Your task to perform on an android device: open app "Messages" (install if not already installed) and enter user name: "Hersey@inbox.com" and password: "facings" Image 0: 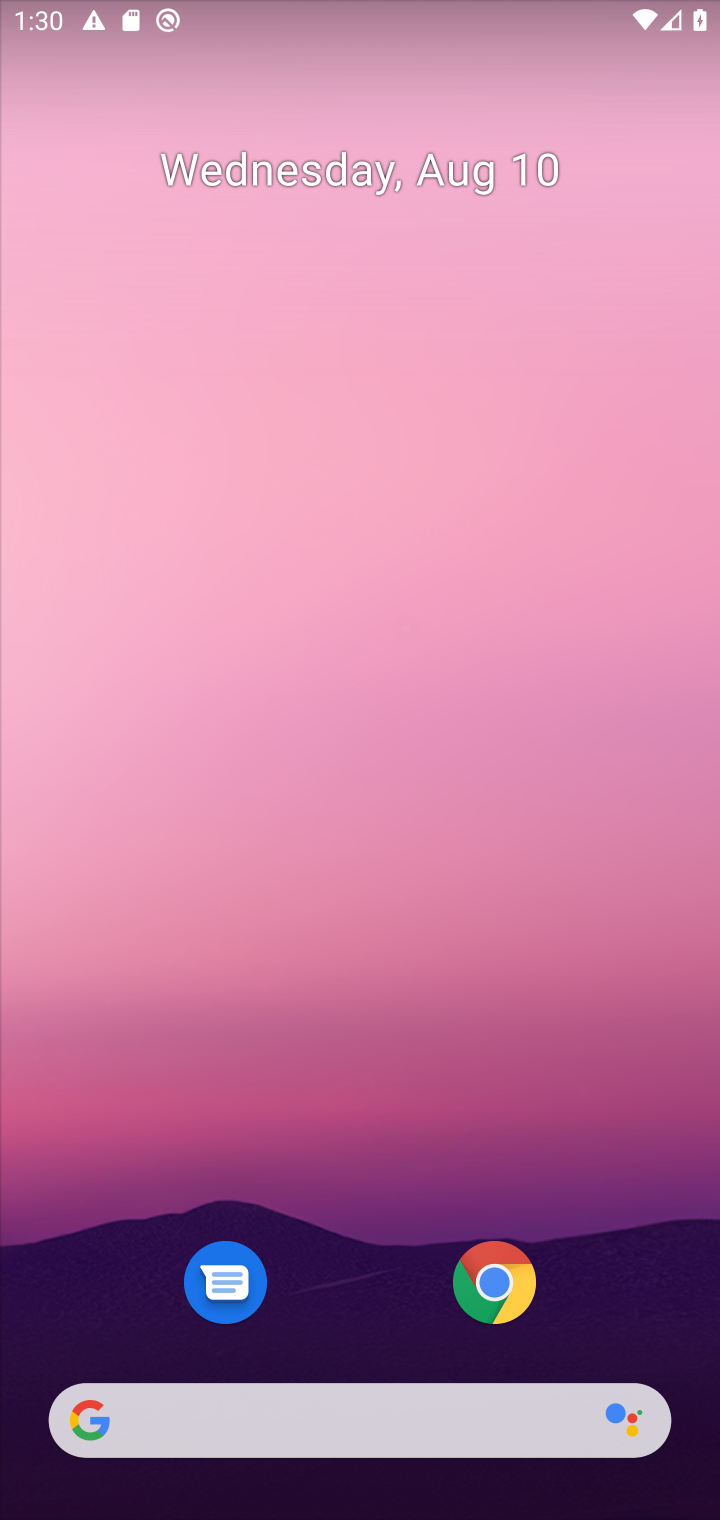
Step 0: drag from (426, 1383) to (384, 163)
Your task to perform on an android device: open app "Messages" (install if not already installed) and enter user name: "Hersey@inbox.com" and password: "facings" Image 1: 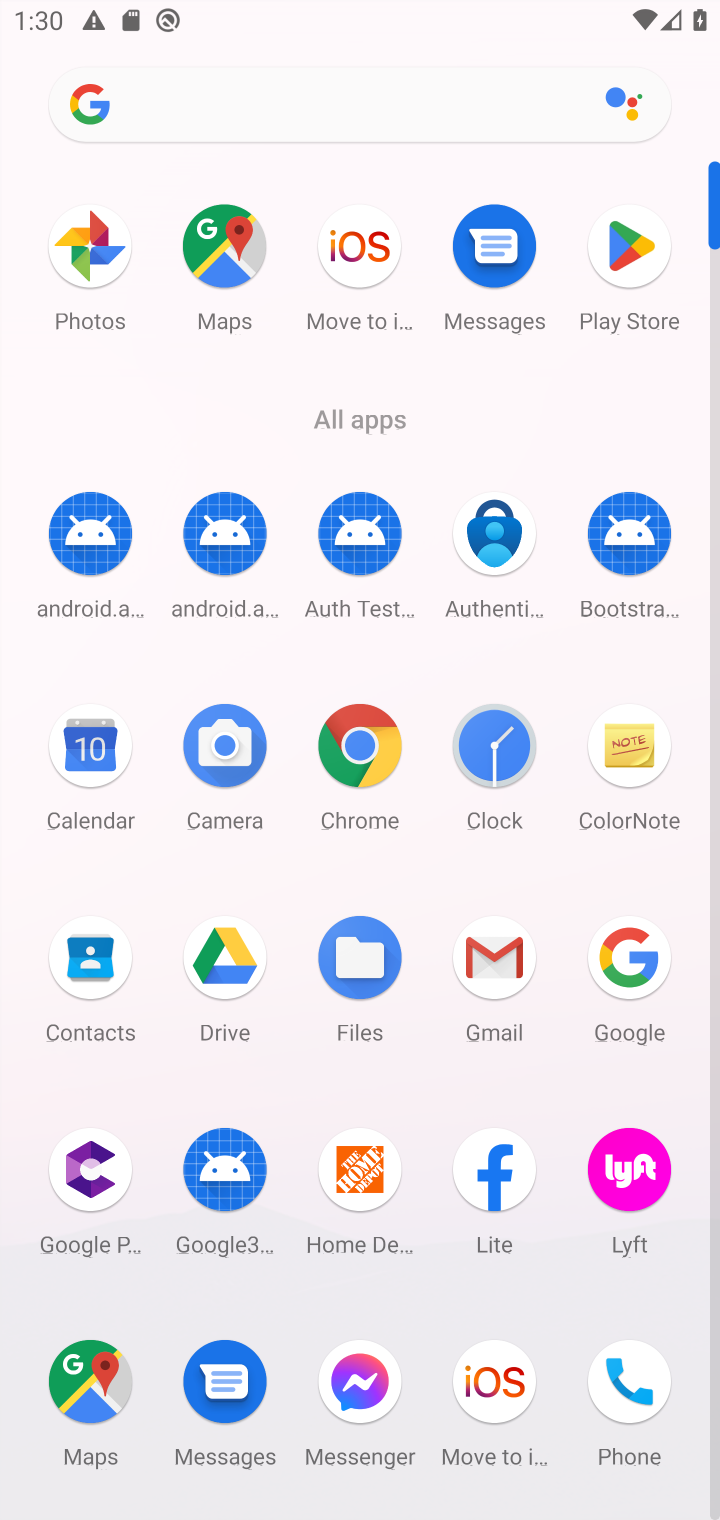
Step 1: click (502, 247)
Your task to perform on an android device: open app "Messages" (install if not already installed) and enter user name: "Hersey@inbox.com" and password: "facings" Image 2: 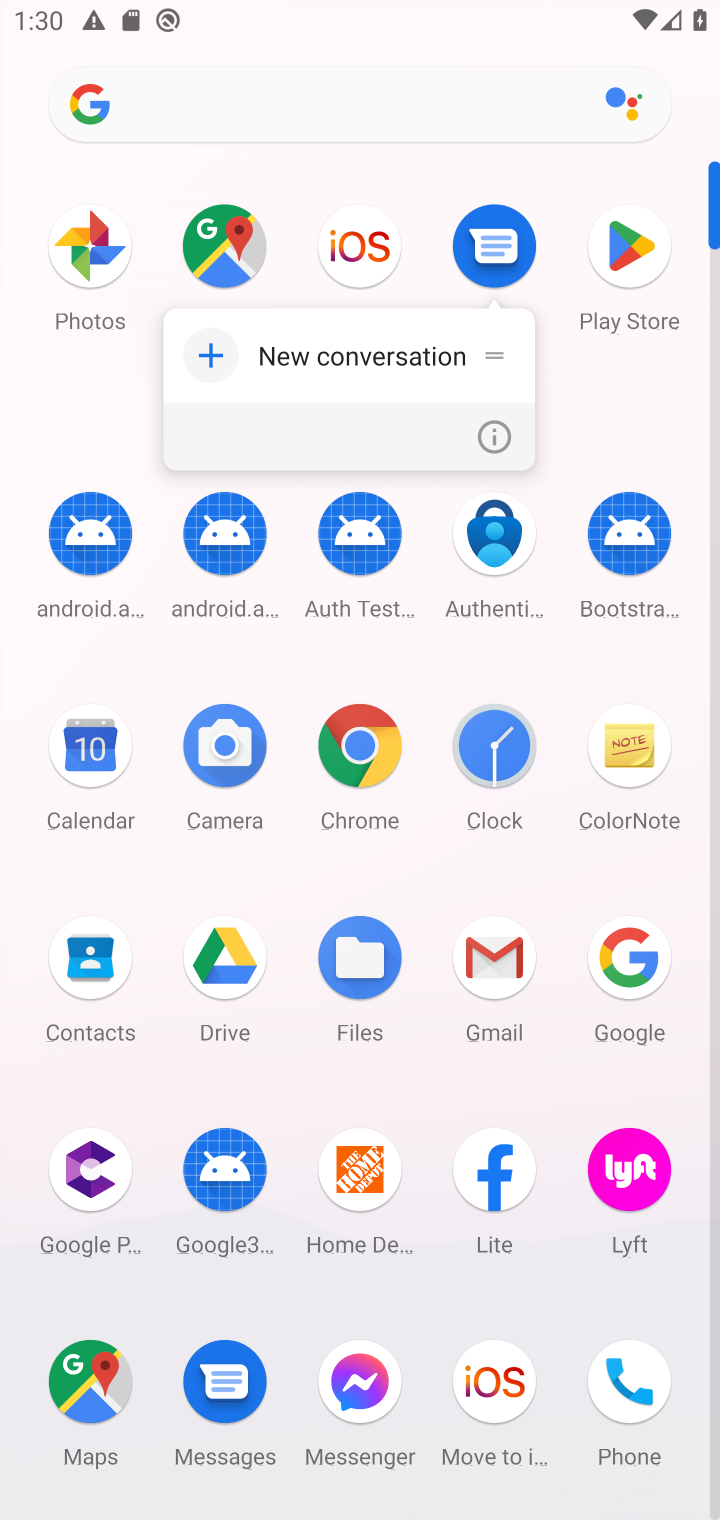
Step 2: click (502, 247)
Your task to perform on an android device: open app "Messages" (install if not already installed) and enter user name: "Hersey@inbox.com" and password: "facings" Image 3: 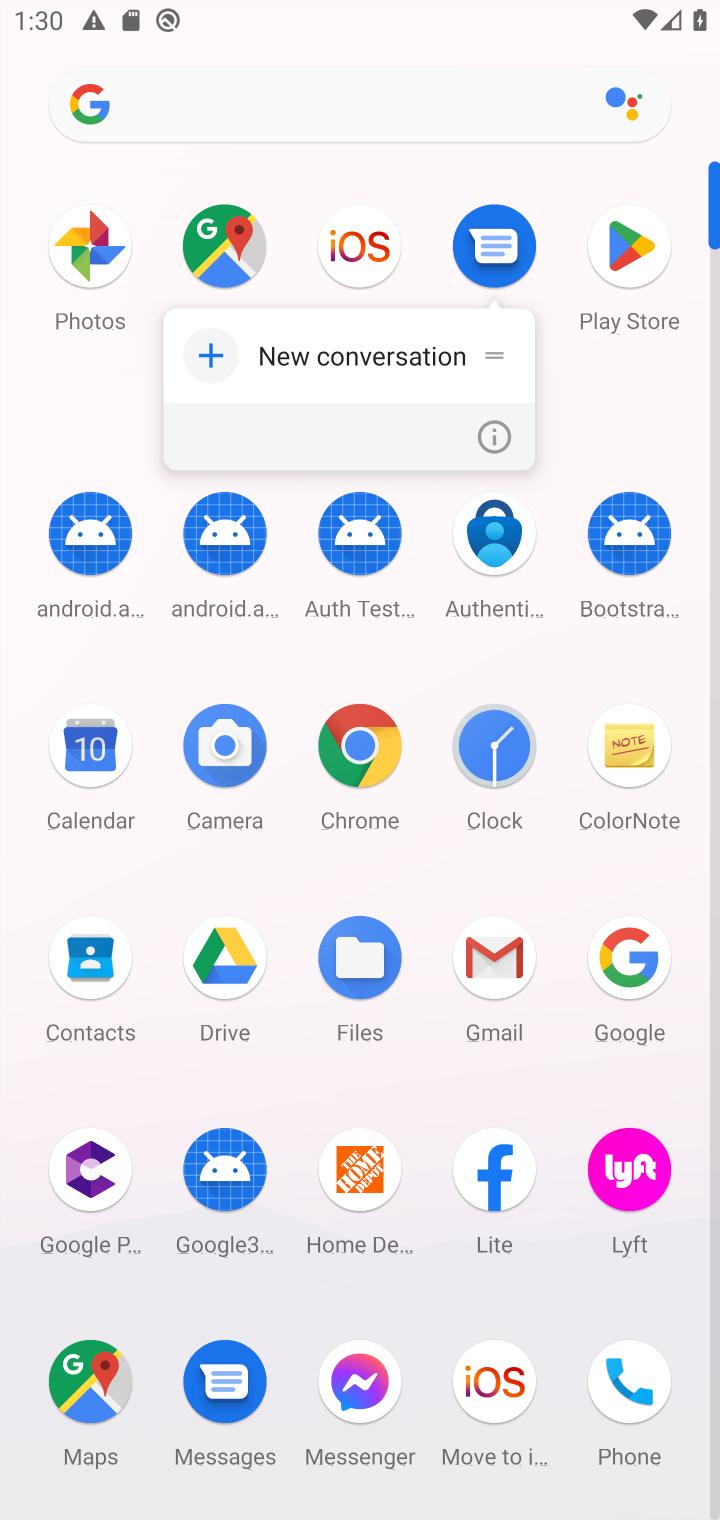
Step 3: click (502, 247)
Your task to perform on an android device: open app "Messages" (install if not already installed) and enter user name: "Hersey@inbox.com" and password: "facings" Image 4: 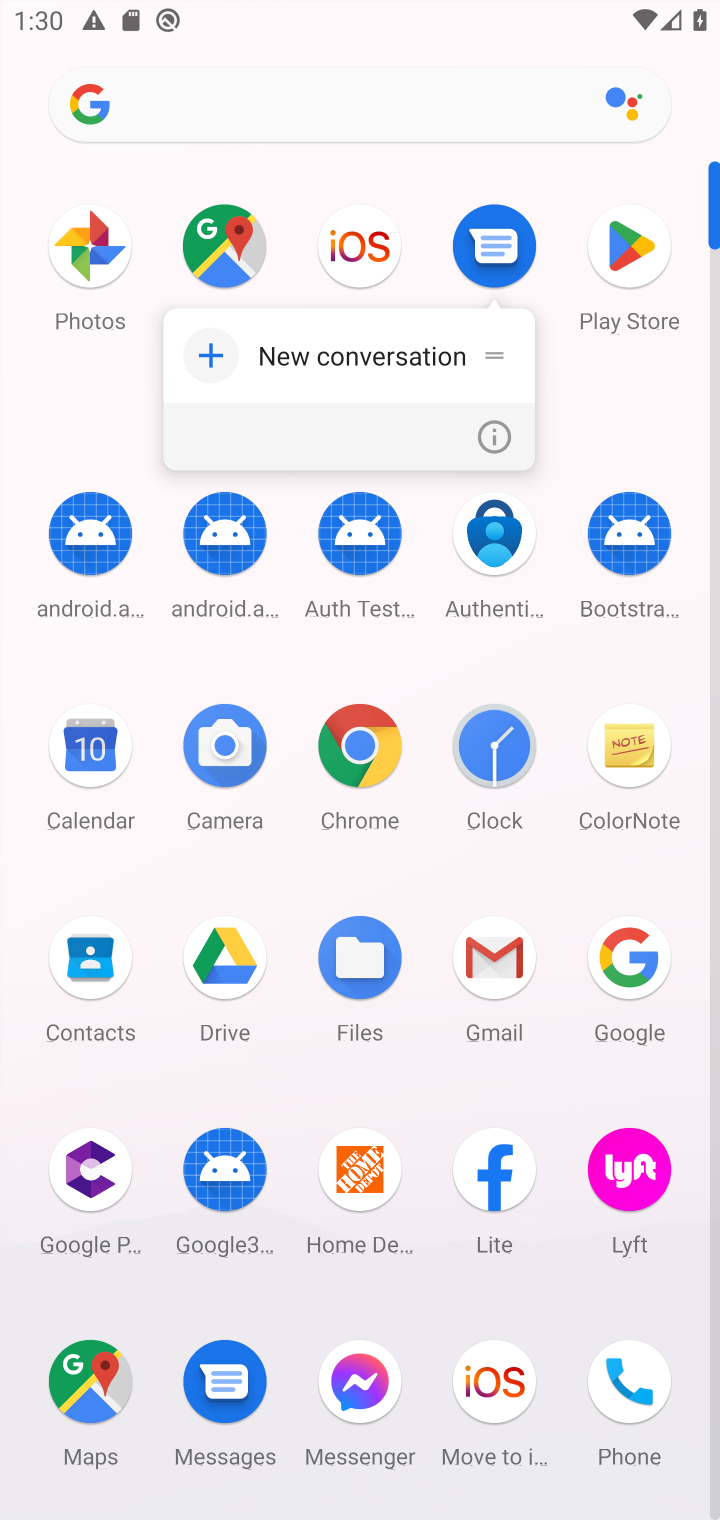
Step 4: click (502, 247)
Your task to perform on an android device: open app "Messages" (install if not already installed) and enter user name: "Hersey@inbox.com" and password: "facings" Image 5: 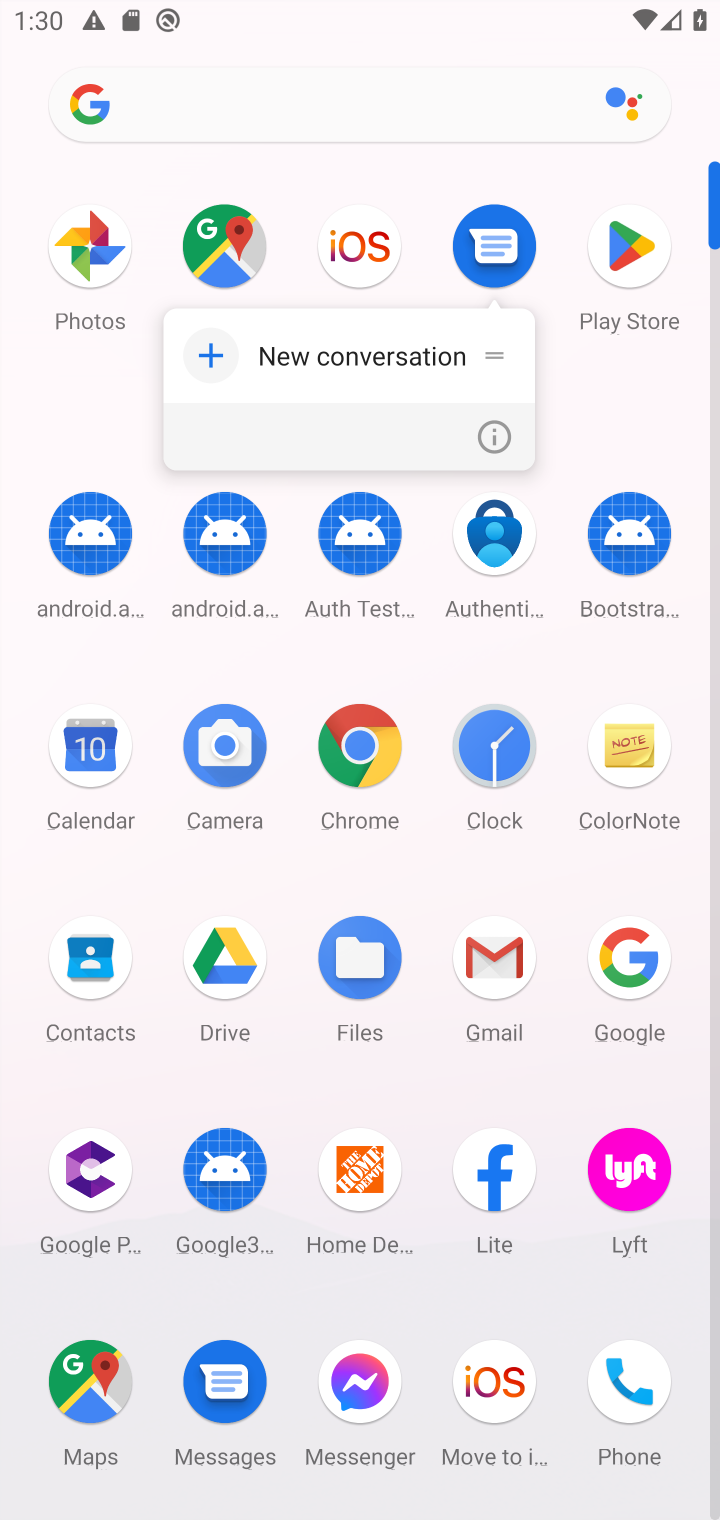
Step 5: click (517, 271)
Your task to perform on an android device: open app "Messages" (install if not already installed) and enter user name: "Hersey@inbox.com" and password: "facings" Image 6: 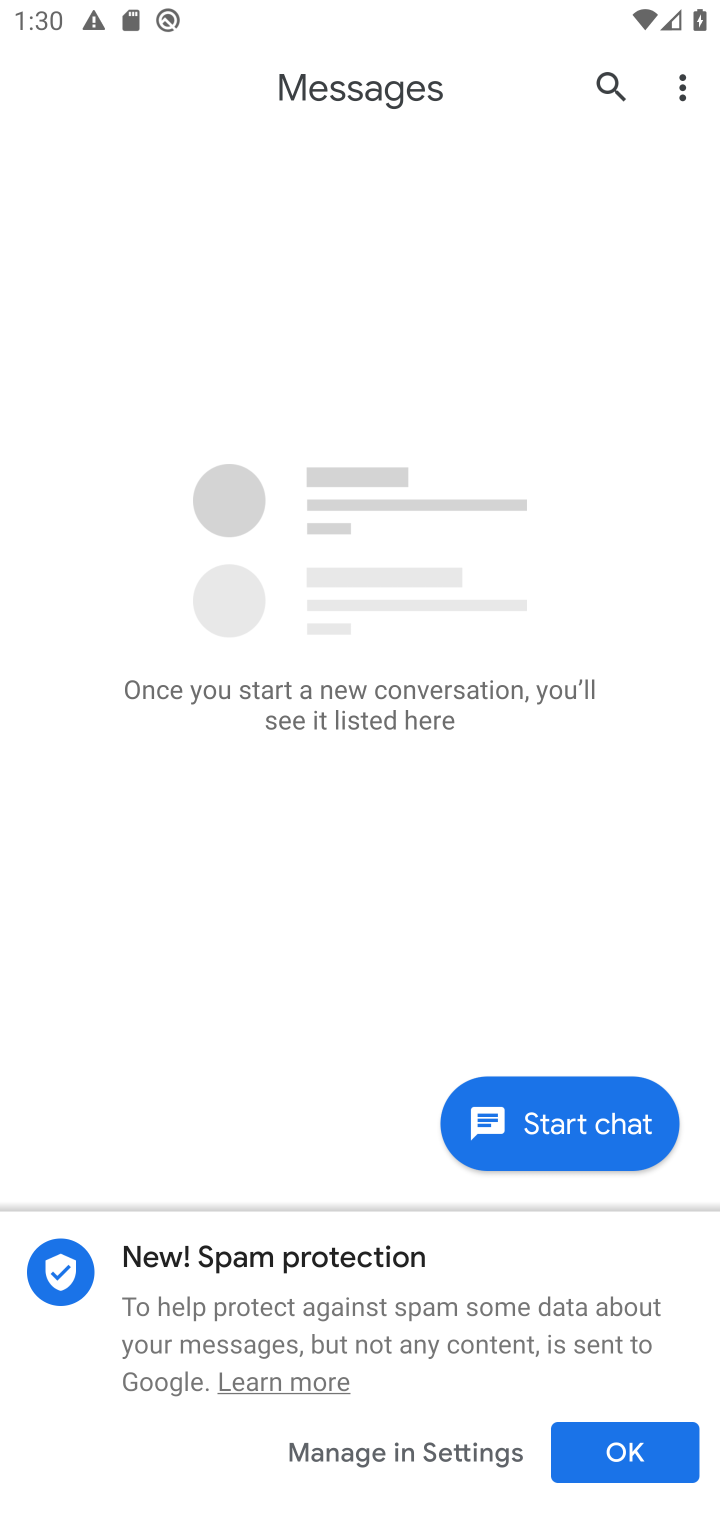
Step 6: task complete